Your task to perform on an android device: toggle translation in the chrome app Image 0: 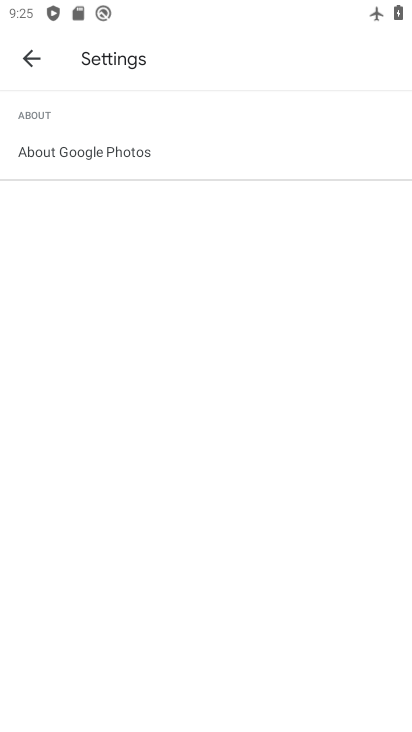
Step 0: press home button
Your task to perform on an android device: toggle translation in the chrome app Image 1: 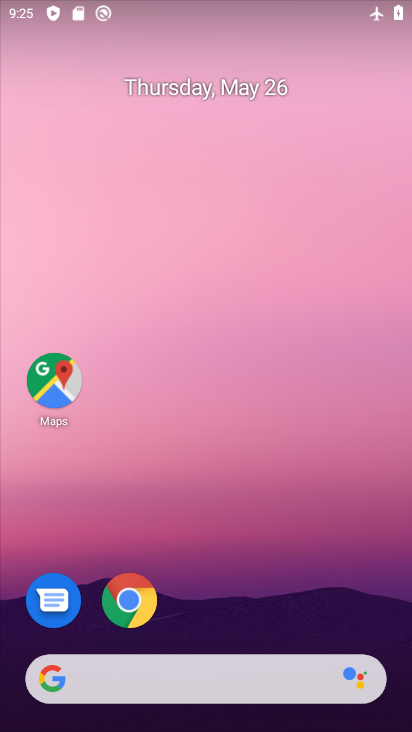
Step 1: drag from (228, 597) to (290, 90)
Your task to perform on an android device: toggle translation in the chrome app Image 2: 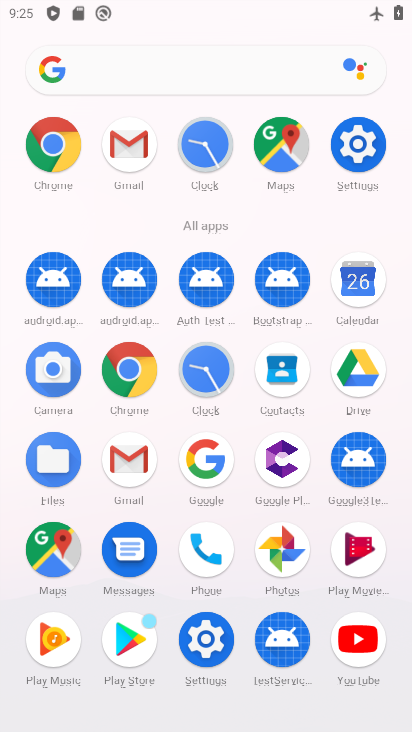
Step 2: click (373, 129)
Your task to perform on an android device: toggle translation in the chrome app Image 3: 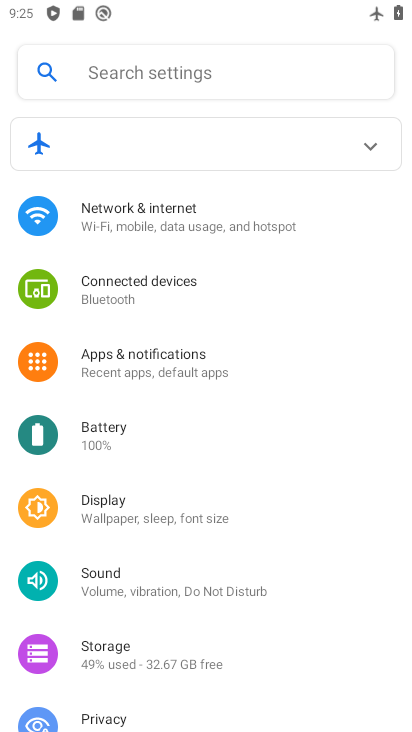
Step 3: press home button
Your task to perform on an android device: toggle translation in the chrome app Image 4: 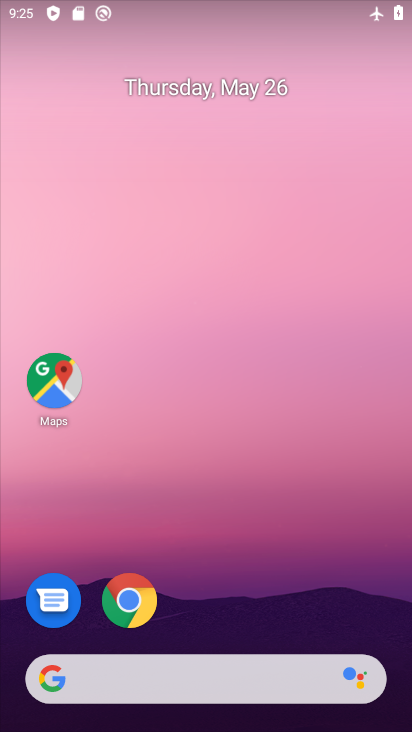
Step 4: click (123, 600)
Your task to perform on an android device: toggle translation in the chrome app Image 5: 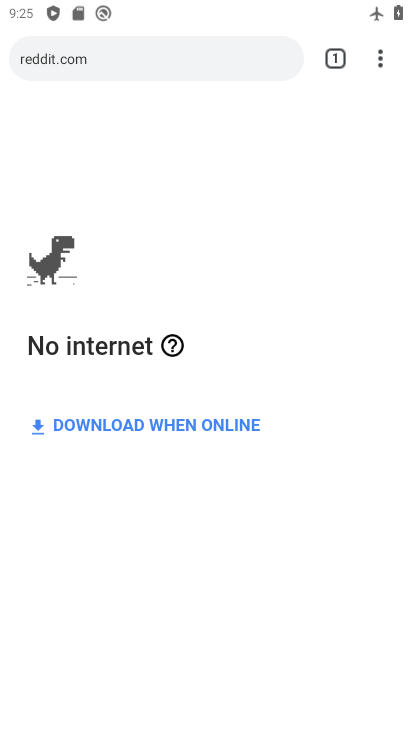
Step 5: drag from (395, 46) to (245, 615)
Your task to perform on an android device: toggle translation in the chrome app Image 6: 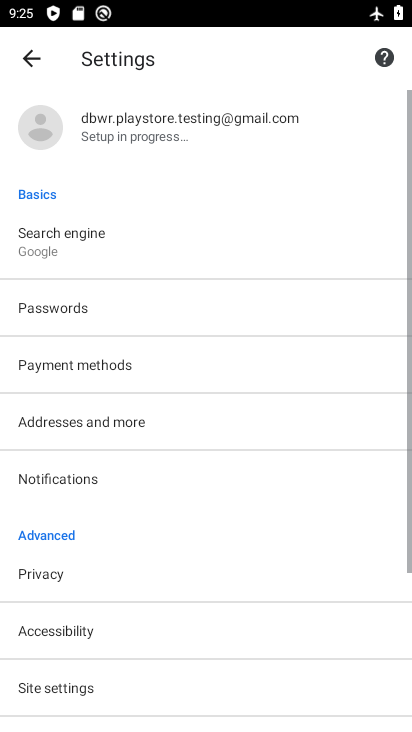
Step 6: drag from (244, 588) to (297, 14)
Your task to perform on an android device: toggle translation in the chrome app Image 7: 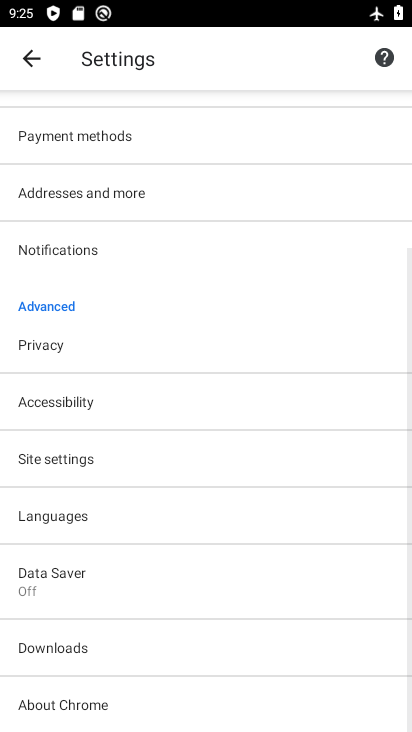
Step 7: click (143, 504)
Your task to perform on an android device: toggle translation in the chrome app Image 8: 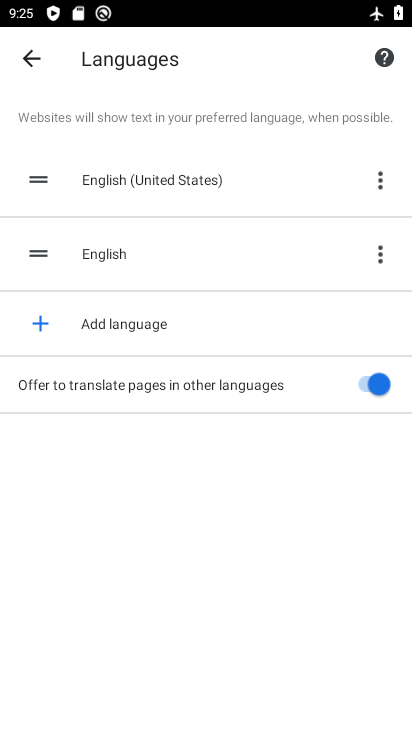
Step 8: click (367, 378)
Your task to perform on an android device: toggle translation in the chrome app Image 9: 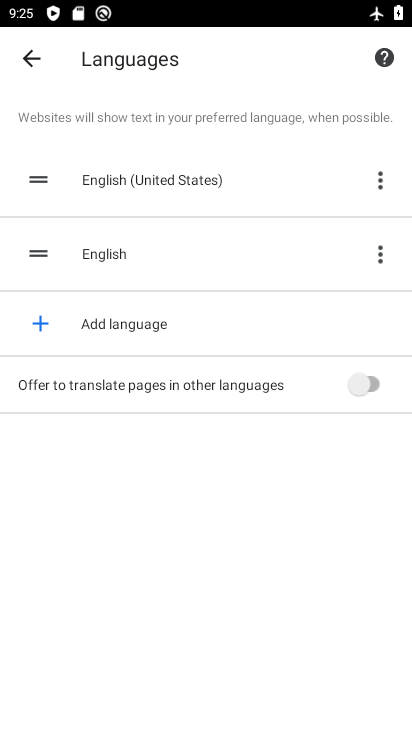
Step 9: task complete